Your task to perform on an android device: stop showing notifications on the lock screen Image 0: 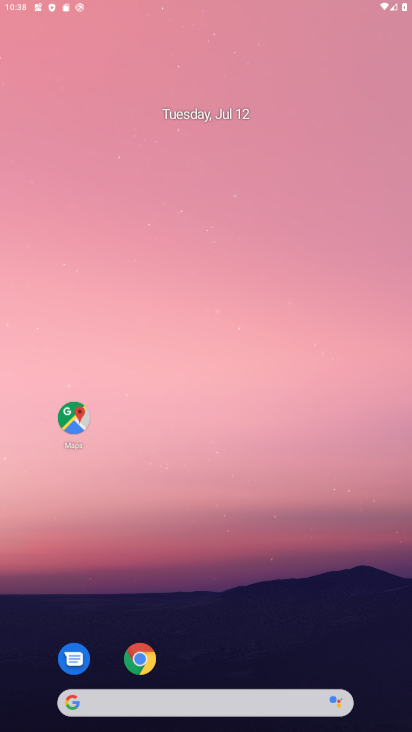
Step 0: click (151, 661)
Your task to perform on an android device: stop showing notifications on the lock screen Image 1: 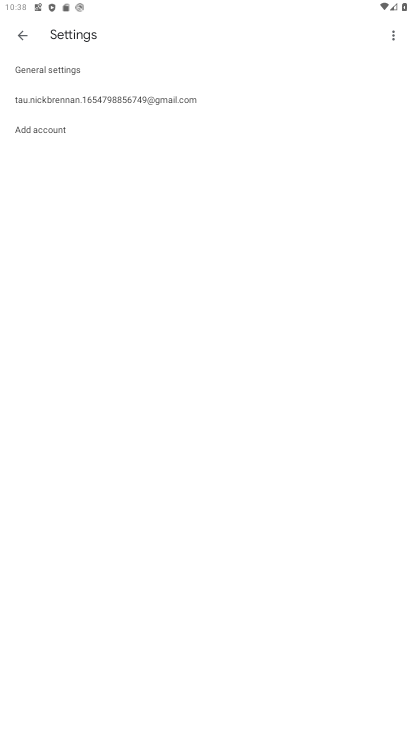
Step 1: press home button
Your task to perform on an android device: stop showing notifications on the lock screen Image 2: 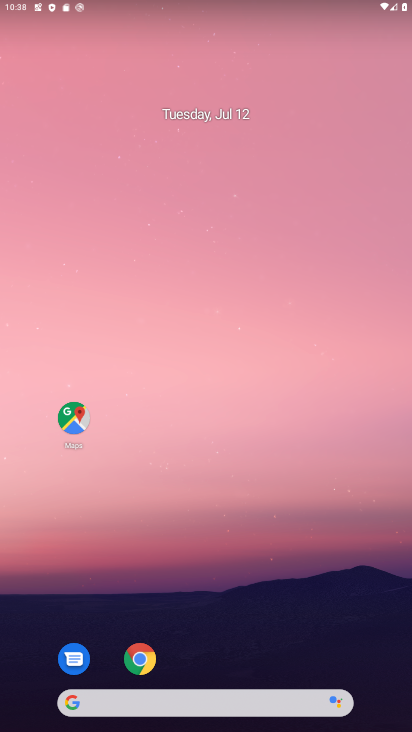
Step 2: drag from (380, 704) to (320, 30)
Your task to perform on an android device: stop showing notifications on the lock screen Image 3: 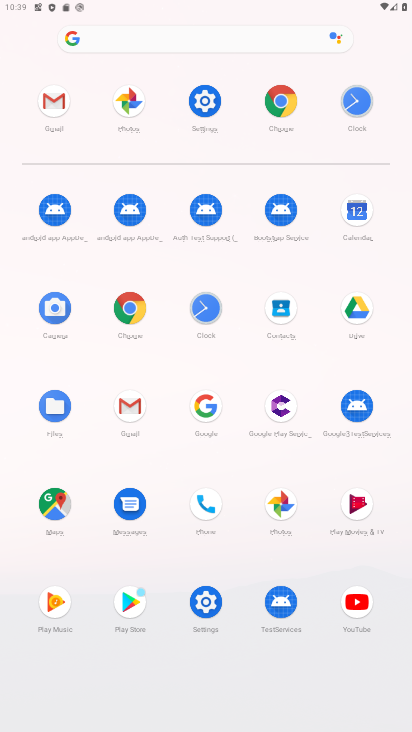
Step 3: click (198, 604)
Your task to perform on an android device: stop showing notifications on the lock screen Image 4: 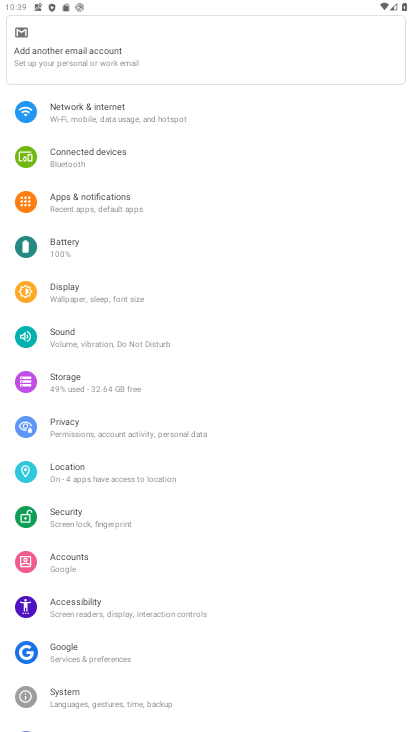
Step 4: click (69, 197)
Your task to perform on an android device: stop showing notifications on the lock screen Image 5: 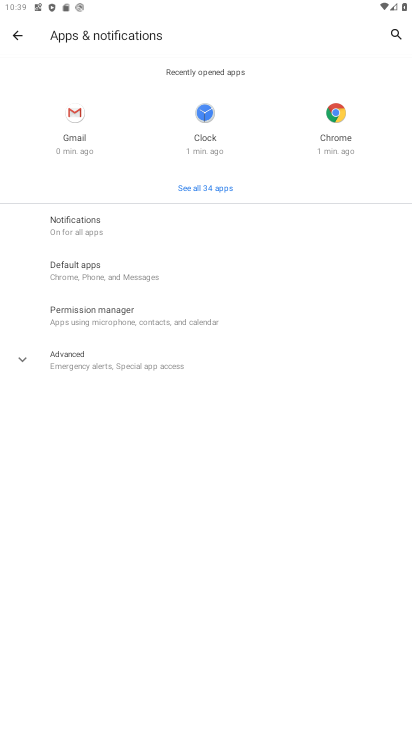
Step 5: click (77, 218)
Your task to perform on an android device: stop showing notifications on the lock screen Image 6: 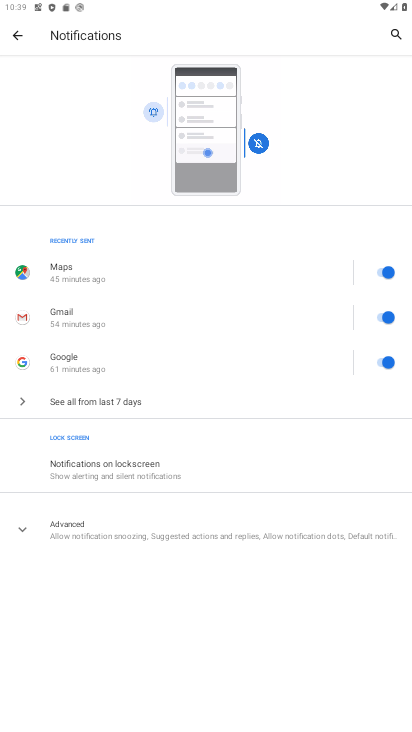
Step 6: click (87, 456)
Your task to perform on an android device: stop showing notifications on the lock screen Image 7: 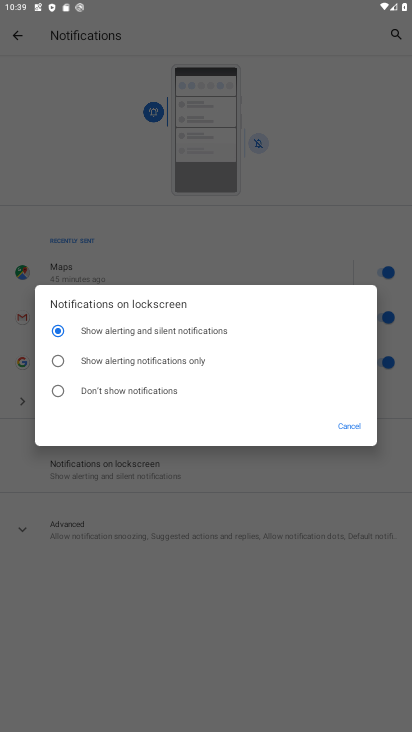
Step 7: click (87, 394)
Your task to perform on an android device: stop showing notifications on the lock screen Image 8: 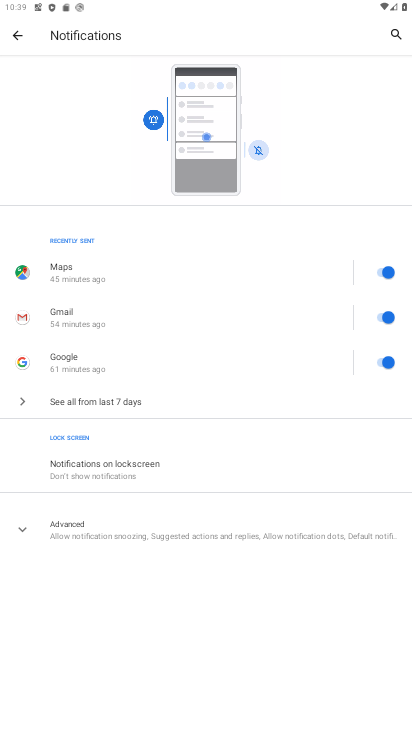
Step 8: task complete